Your task to perform on an android device: change timer sound Image 0: 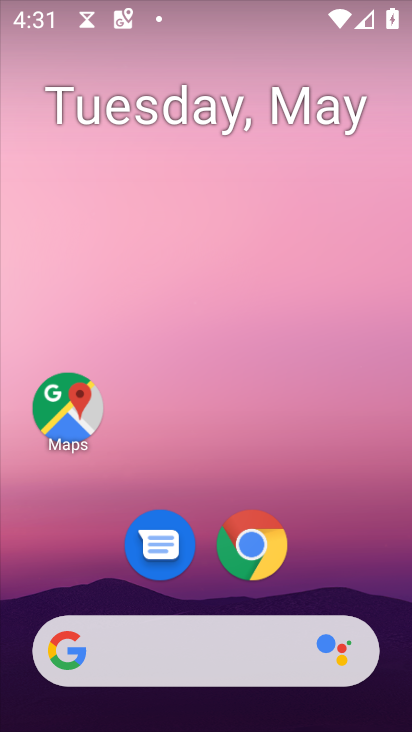
Step 0: drag from (345, 566) to (304, 138)
Your task to perform on an android device: change timer sound Image 1: 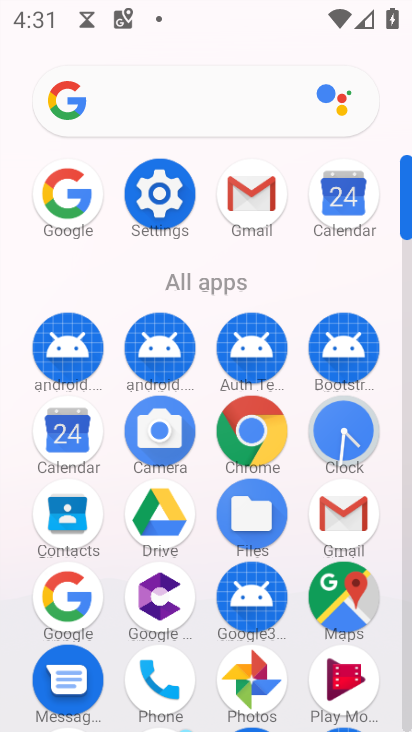
Step 1: click (344, 432)
Your task to perform on an android device: change timer sound Image 2: 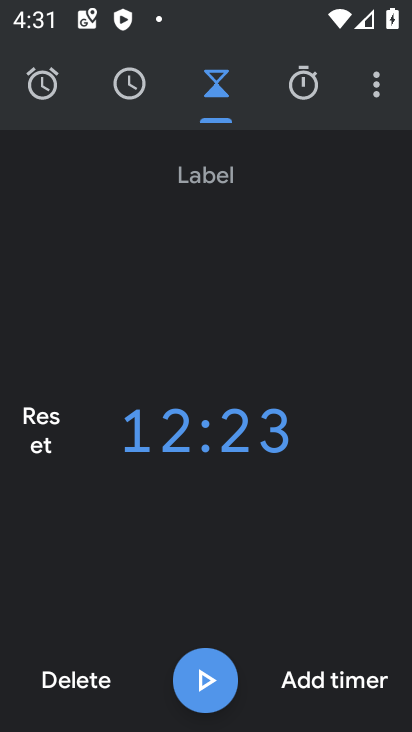
Step 2: click (378, 88)
Your task to perform on an android device: change timer sound Image 3: 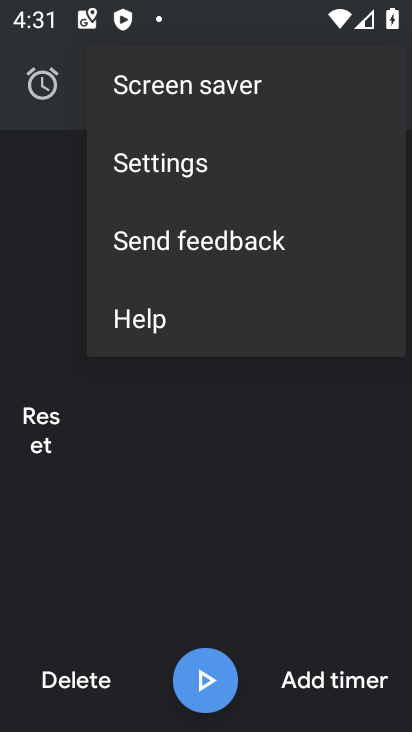
Step 3: click (155, 162)
Your task to perform on an android device: change timer sound Image 4: 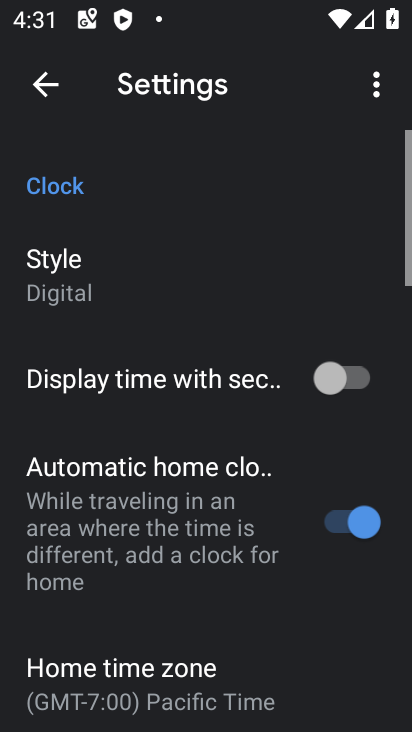
Step 4: drag from (200, 589) to (245, 373)
Your task to perform on an android device: change timer sound Image 5: 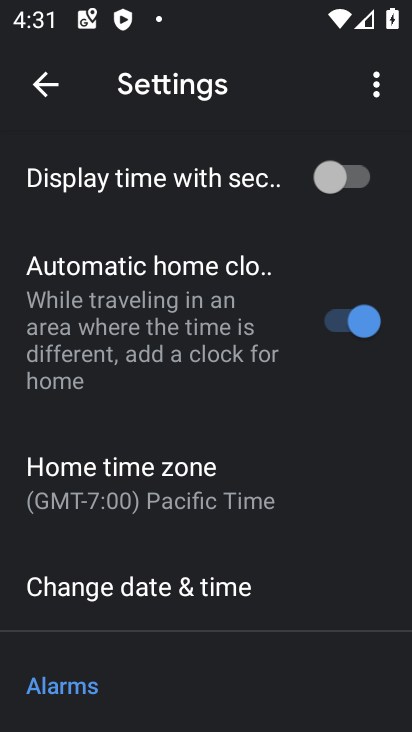
Step 5: drag from (156, 544) to (212, 357)
Your task to perform on an android device: change timer sound Image 6: 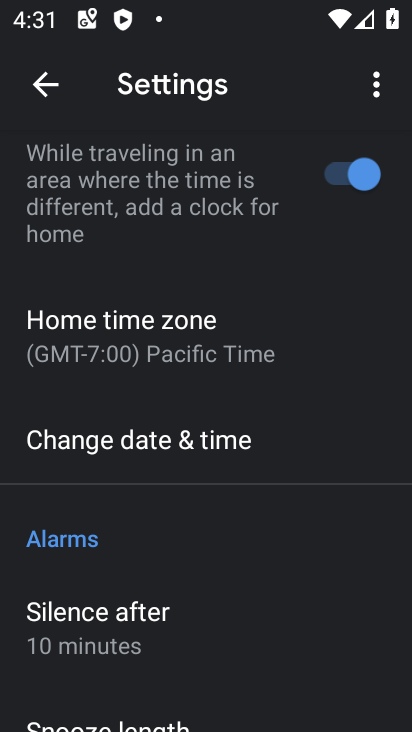
Step 6: drag from (138, 557) to (192, 394)
Your task to perform on an android device: change timer sound Image 7: 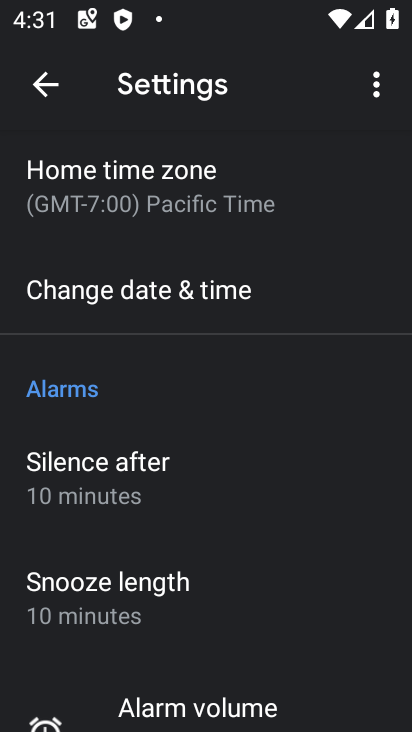
Step 7: drag from (115, 543) to (224, 361)
Your task to perform on an android device: change timer sound Image 8: 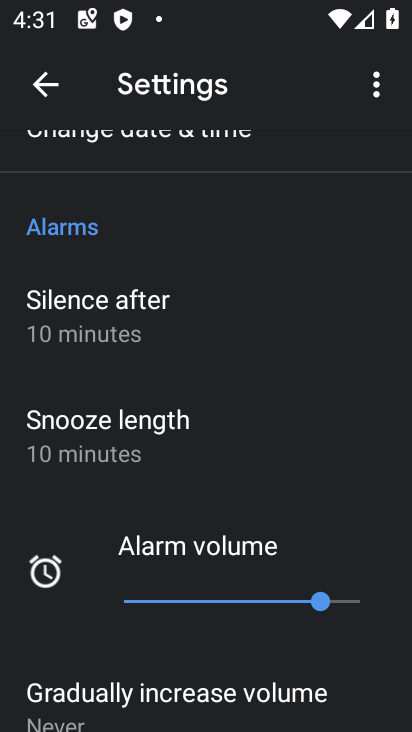
Step 8: drag from (94, 526) to (168, 346)
Your task to perform on an android device: change timer sound Image 9: 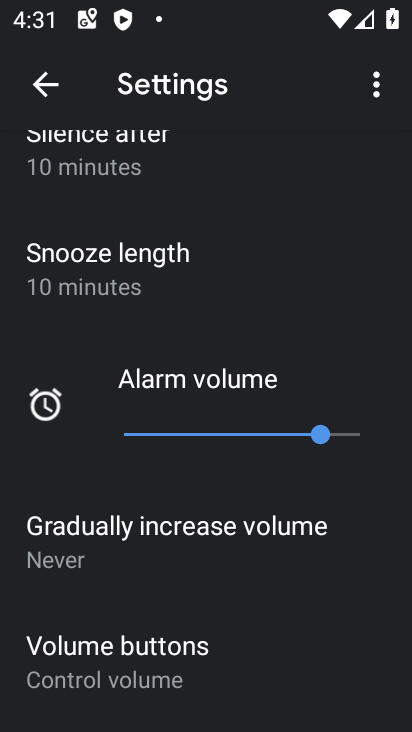
Step 9: drag from (67, 602) to (183, 401)
Your task to perform on an android device: change timer sound Image 10: 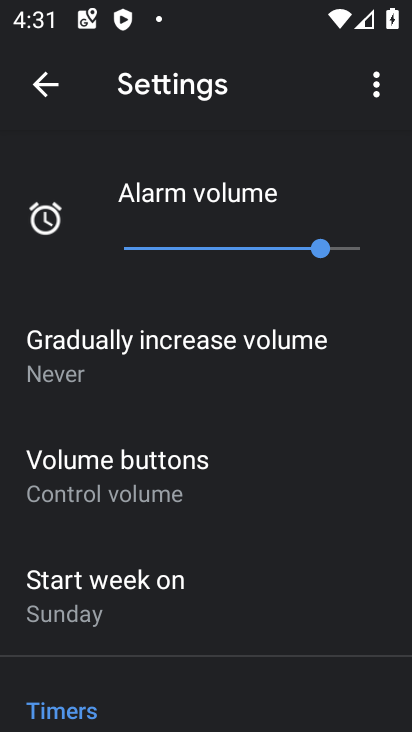
Step 10: drag from (79, 559) to (184, 388)
Your task to perform on an android device: change timer sound Image 11: 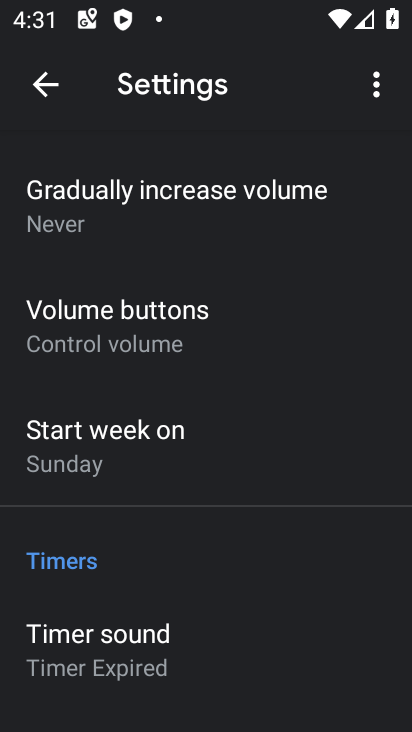
Step 11: drag from (63, 603) to (207, 389)
Your task to perform on an android device: change timer sound Image 12: 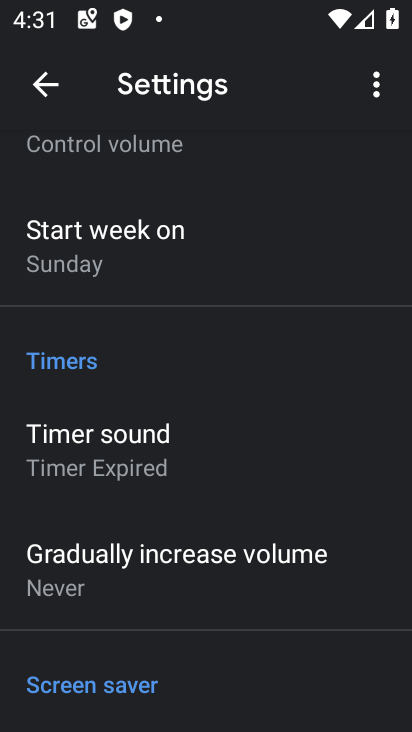
Step 12: click (141, 450)
Your task to perform on an android device: change timer sound Image 13: 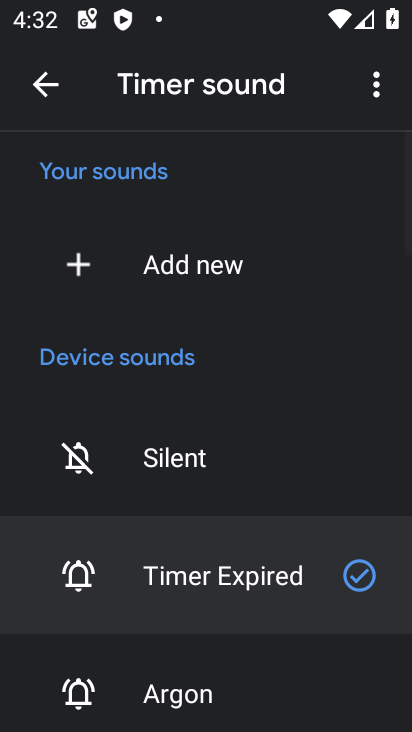
Step 13: drag from (125, 643) to (259, 405)
Your task to perform on an android device: change timer sound Image 14: 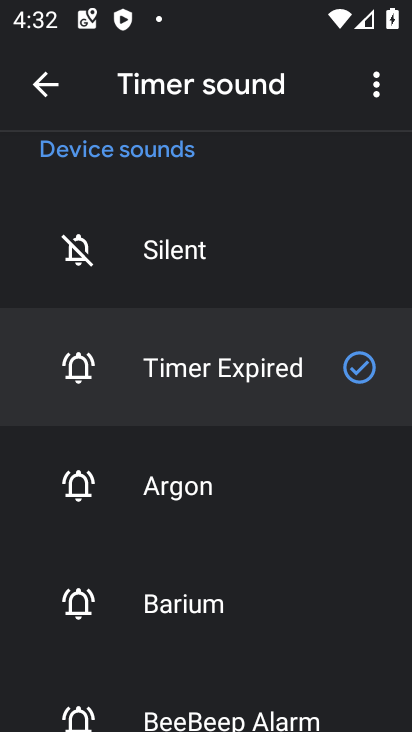
Step 14: drag from (160, 642) to (280, 416)
Your task to perform on an android device: change timer sound Image 15: 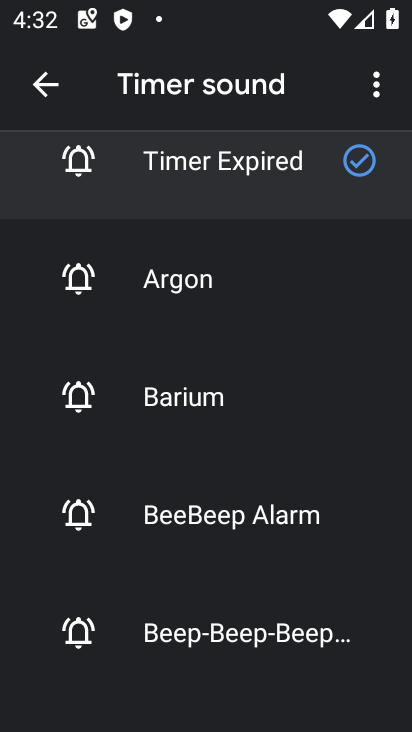
Step 15: click (181, 633)
Your task to perform on an android device: change timer sound Image 16: 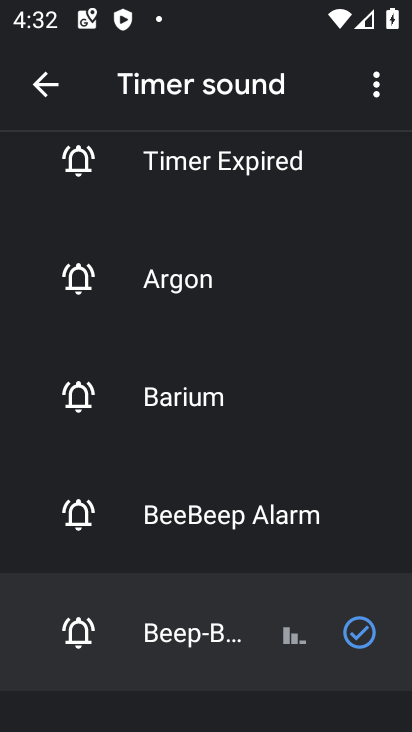
Step 16: task complete